Your task to perform on an android device: uninstall "Google Maps" Image 0: 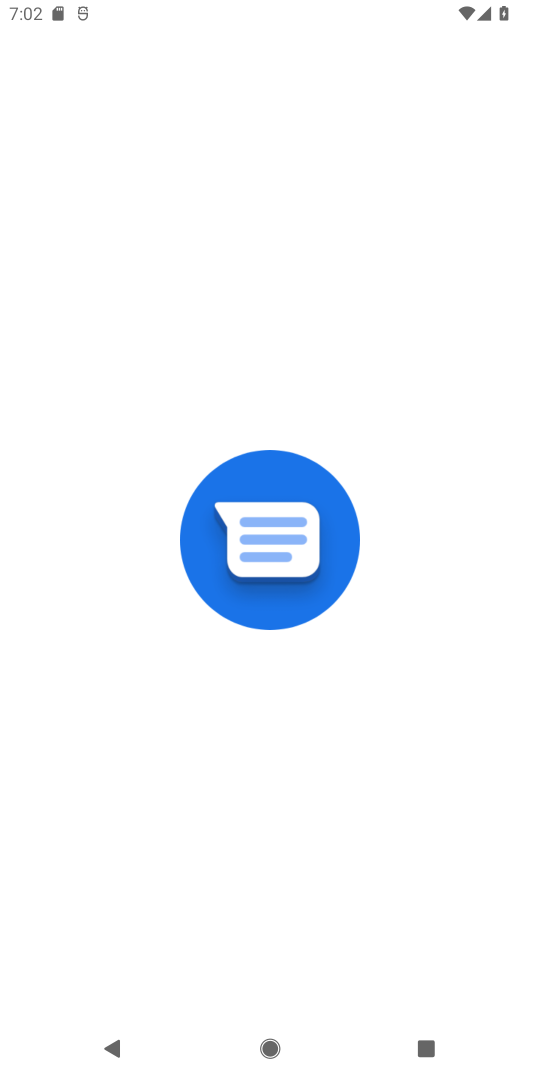
Step 0: press home button
Your task to perform on an android device: uninstall "Google Maps" Image 1: 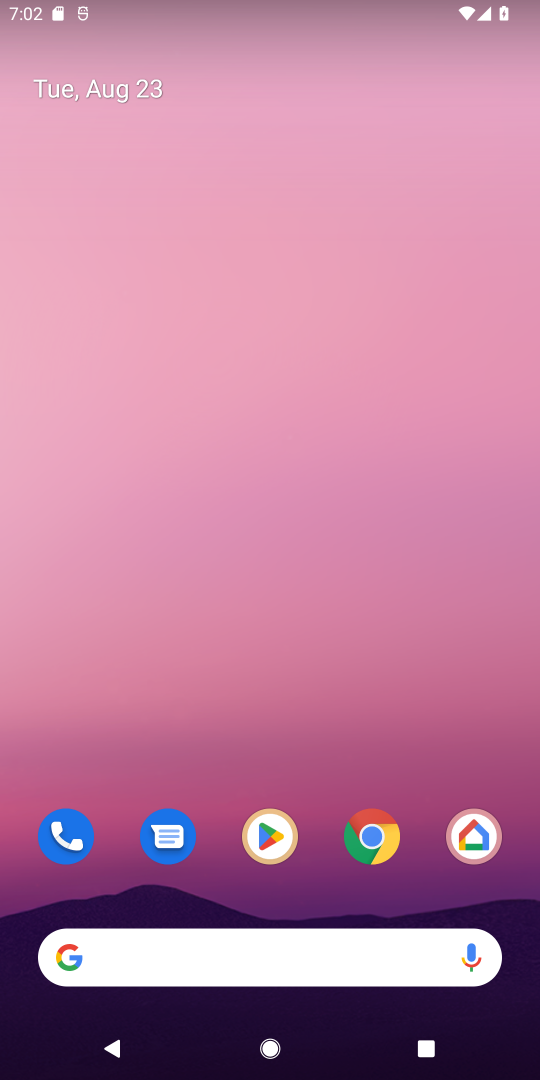
Step 1: click (266, 835)
Your task to perform on an android device: uninstall "Google Maps" Image 2: 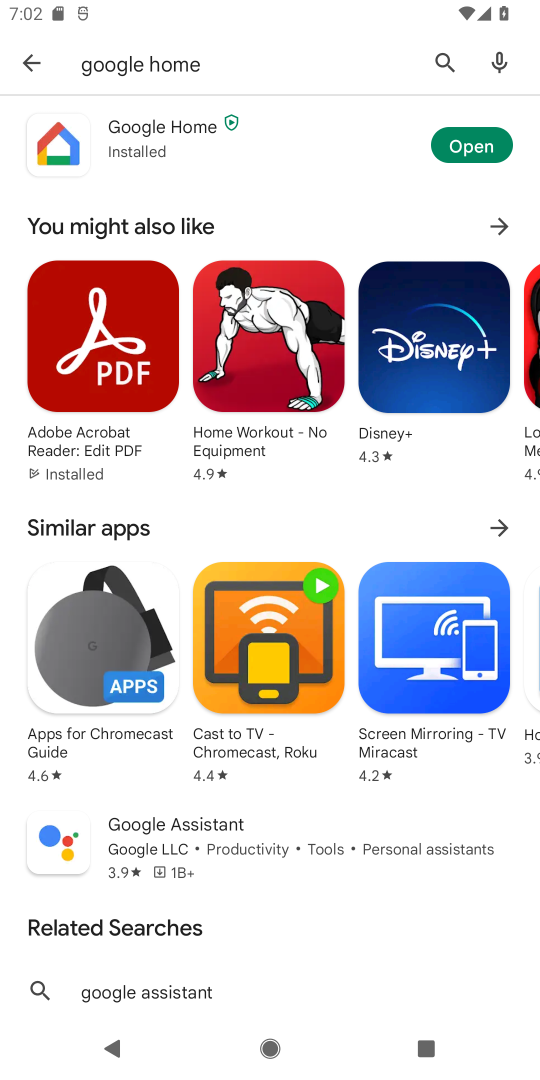
Step 2: click (446, 52)
Your task to perform on an android device: uninstall "Google Maps" Image 3: 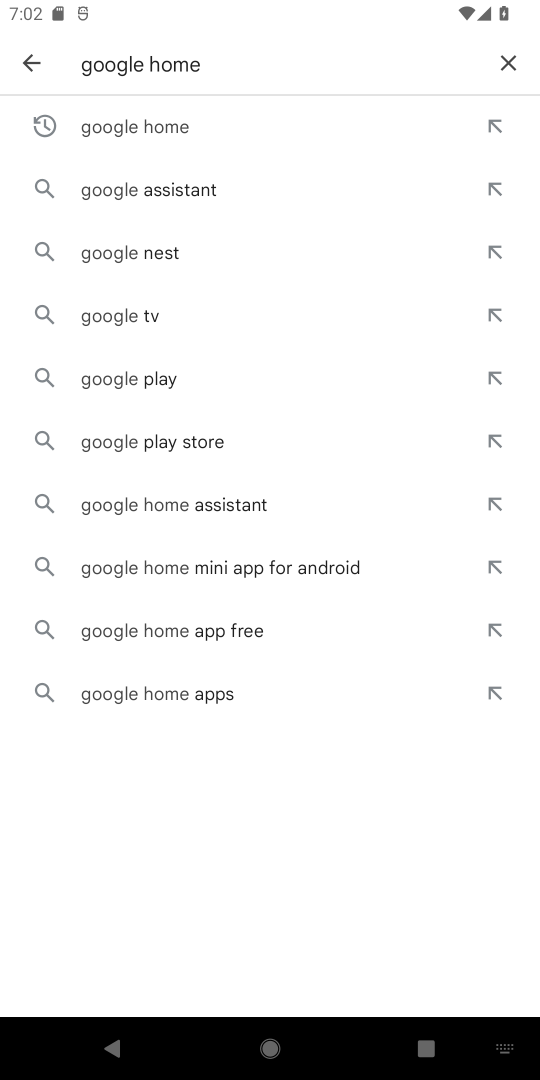
Step 3: click (505, 65)
Your task to perform on an android device: uninstall "Google Maps" Image 4: 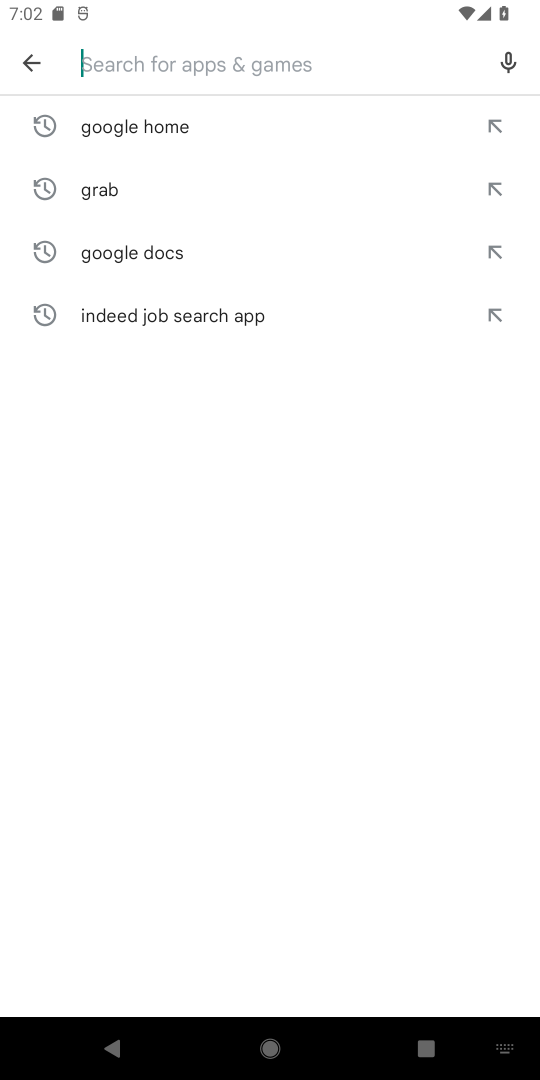
Step 4: type "Google Maps"
Your task to perform on an android device: uninstall "Google Maps" Image 5: 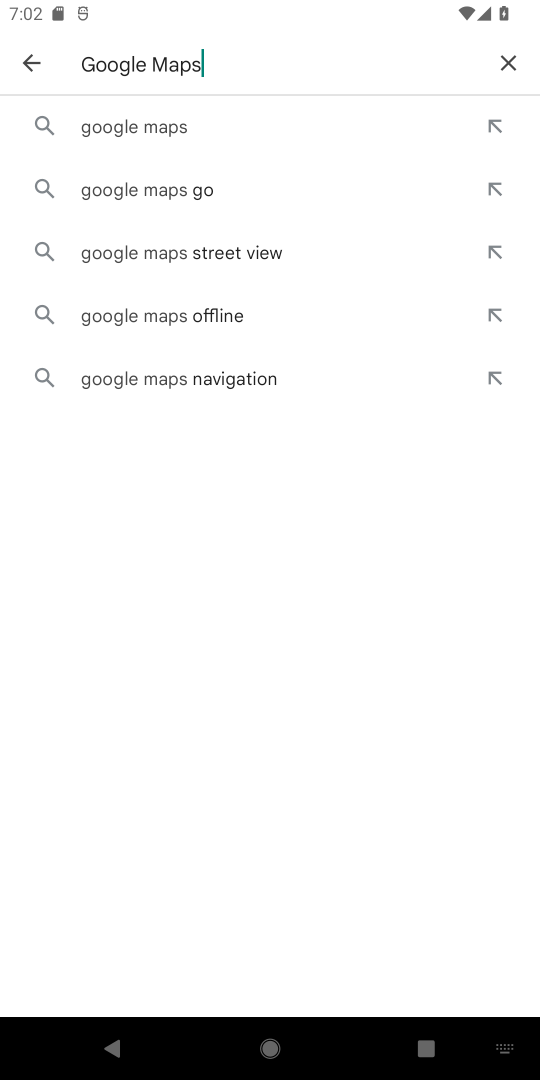
Step 5: click (160, 131)
Your task to perform on an android device: uninstall "Google Maps" Image 6: 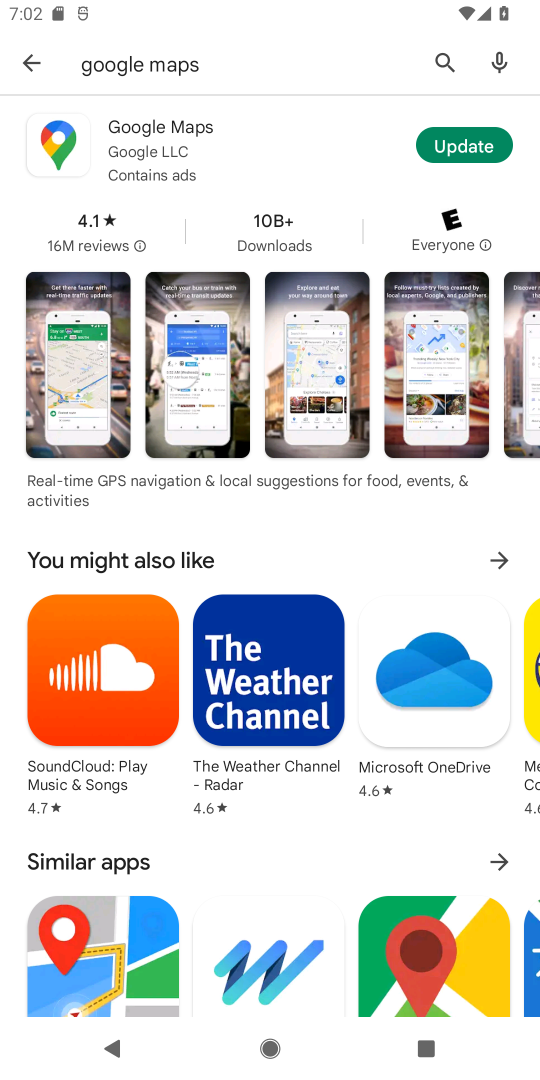
Step 6: click (136, 119)
Your task to perform on an android device: uninstall "Google Maps" Image 7: 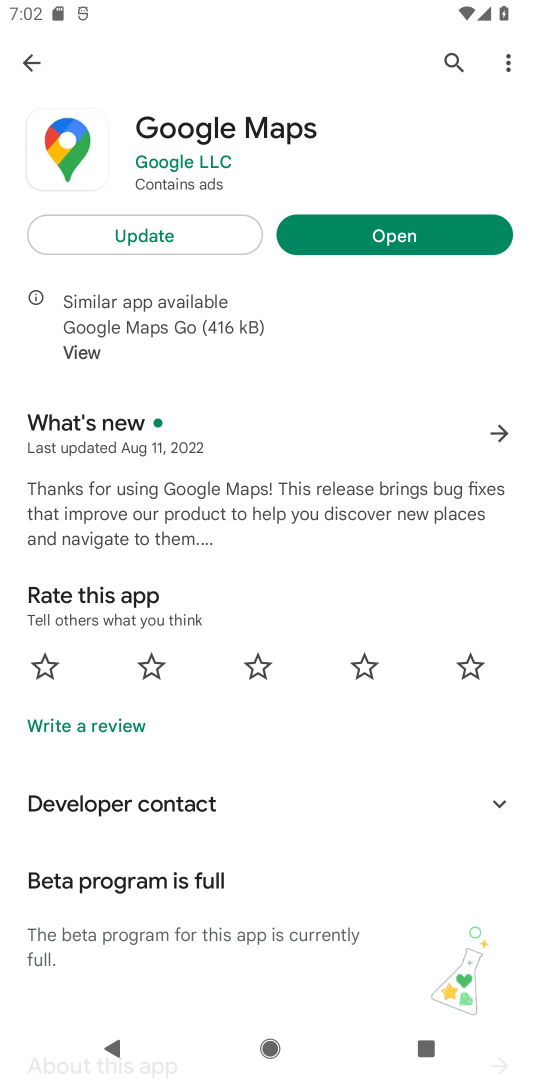
Step 7: task complete